Your task to perform on an android device: Search for the best deal on a 3d printer on aliexpress Image 0: 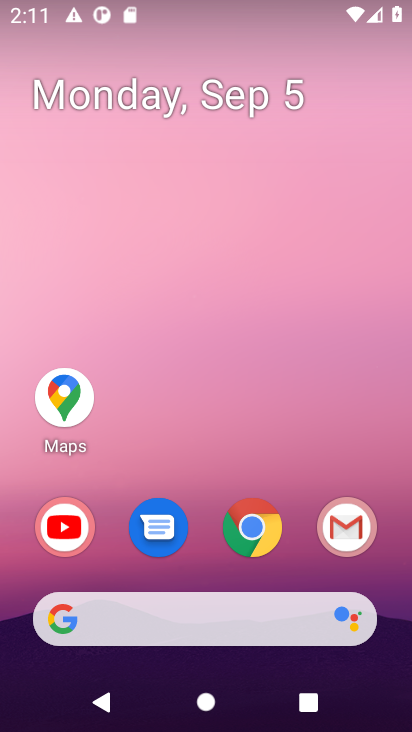
Step 0: click (242, 525)
Your task to perform on an android device: Search for the best deal on a 3d printer on aliexpress Image 1: 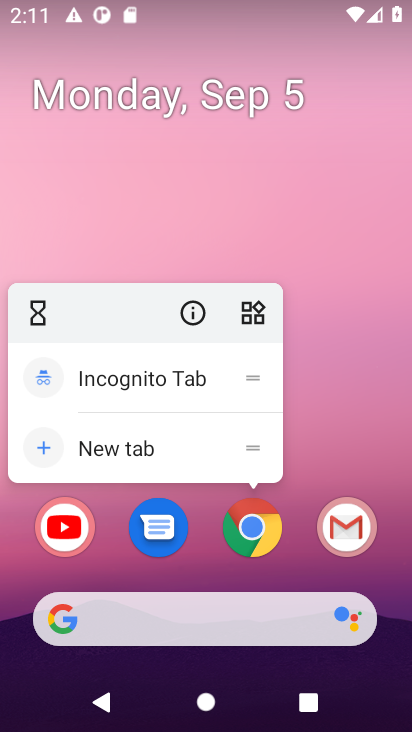
Step 1: click (242, 525)
Your task to perform on an android device: Search for the best deal on a 3d printer on aliexpress Image 2: 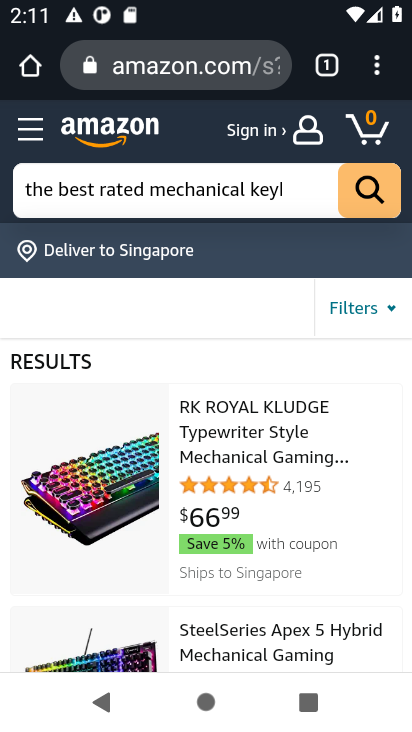
Step 2: click (190, 60)
Your task to perform on an android device: Search for the best deal on a 3d printer on aliexpress Image 3: 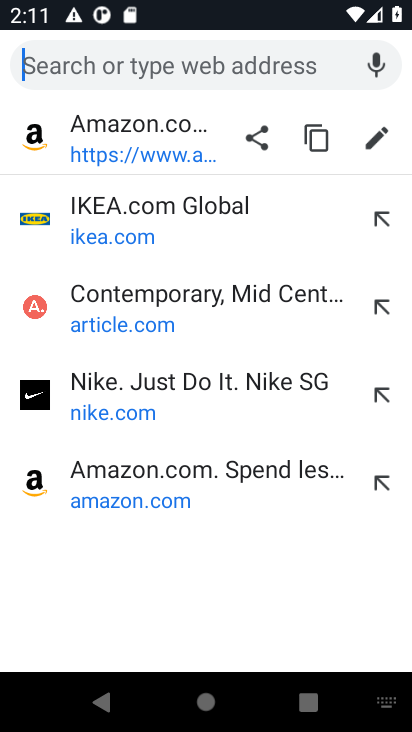
Step 3: type "Ali Express"
Your task to perform on an android device: Search for the best deal on a 3d printer on aliexpress Image 4: 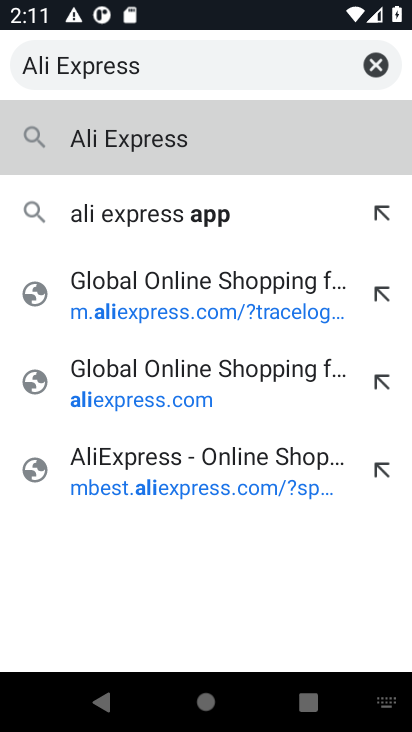
Step 4: click (122, 144)
Your task to perform on an android device: Search for the best deal on a 3d printer on aliexpress Image 5: 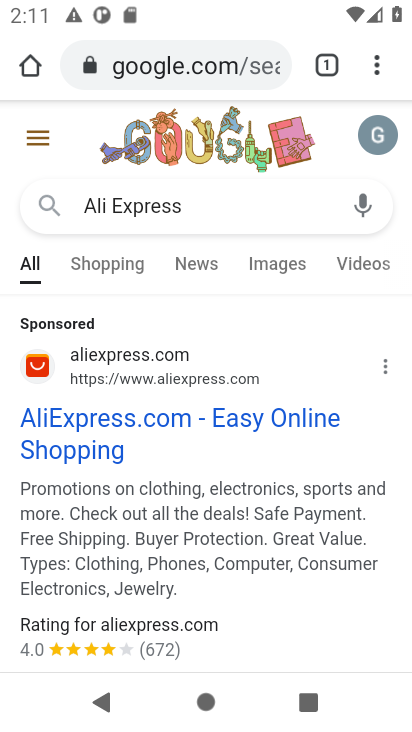
Step 5: click (45, 416)
Your task to perform on an android device: Search for the best deal on a 3d printer on aliexpress Image 6: 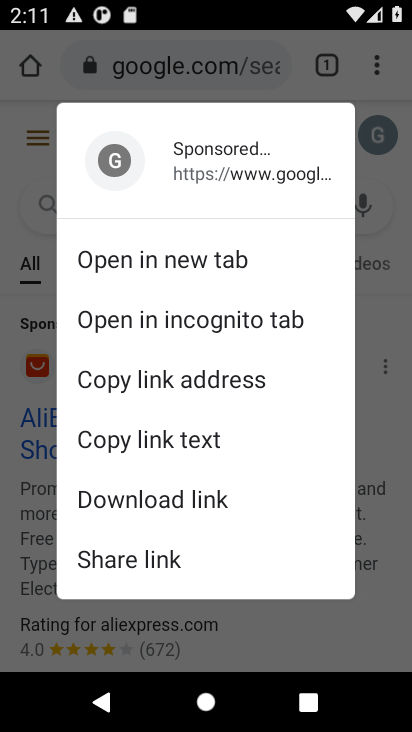
Step 6: click (45, 416)
Your task to perform on an android device: Search for the best deal on a 3d printer on aliexpress Image 7: 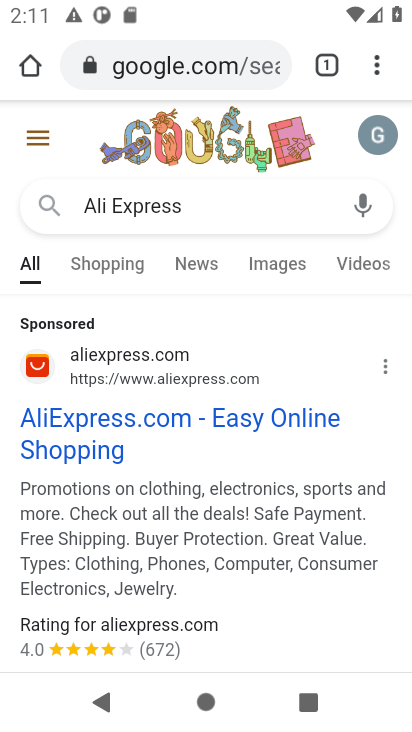
Step 7: click (45, 416)
Your task to perform on an android device: Search for the best deal on a 3d printer on aliexpress Image 8: 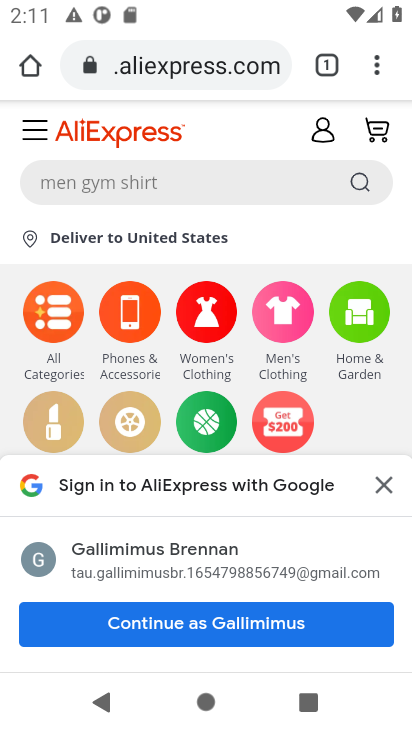
Step 8: click (380, 483)
Your task to perform on an android device: Search for the best deal on a 3d printer on aliexpress Image 9: 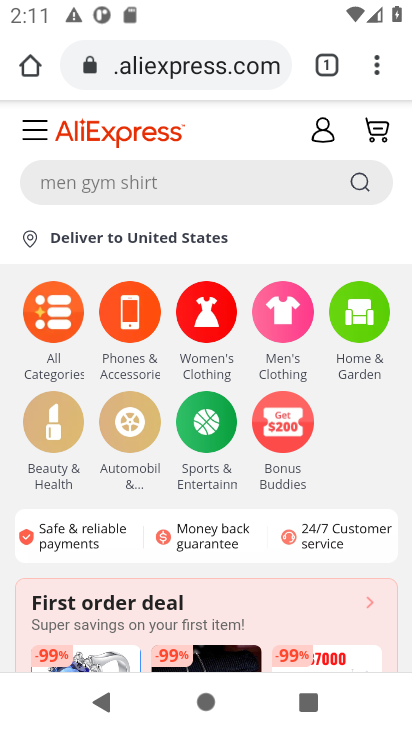
Step 9: click (380, 483)
Your task to perform on an android device: Search for the best deal on a 3d printer on aliexpress Image 10: 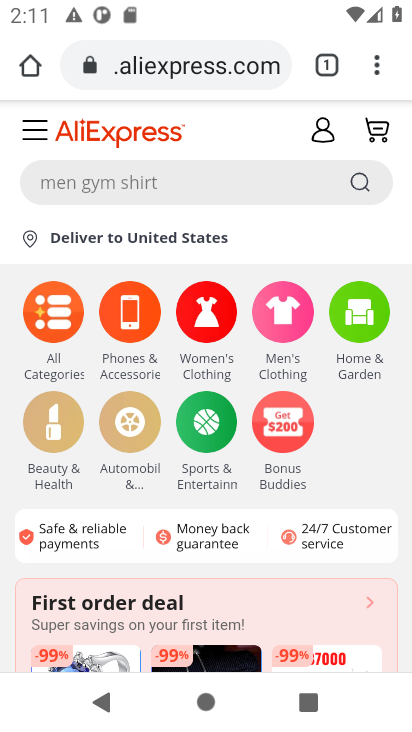
Step 10: click (140, 181)
Your task to perform on an android device: Search for the best deal on a 3d printer on aliexpress Image 11: 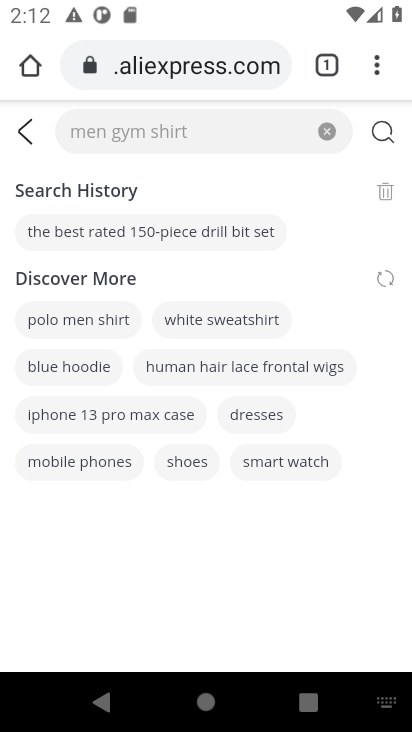
Step 11: type "the best deal on a 3d printer"
Your task to perform on an android device: Search for the best deal on a 3d printer on aliexpress Image 12: 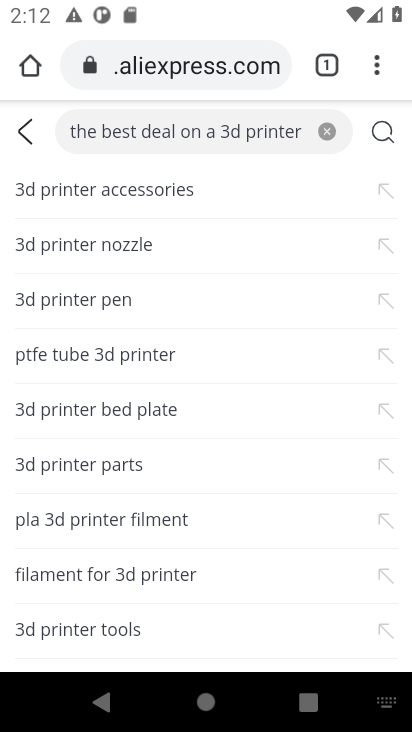
Step 12: click (384, 127)
Your task to perform on an android device: Search for the best deal on a 3d printer on aliexpress Image 13: 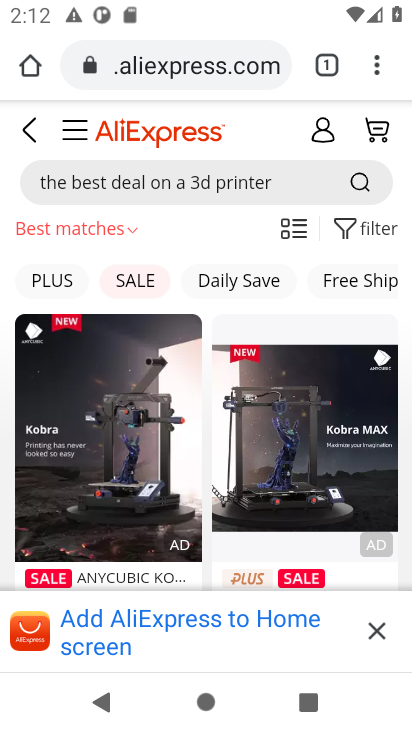
Step 13: task complete